Your task to perform on an android device: turn off smart reply in the gmail app Image 0: 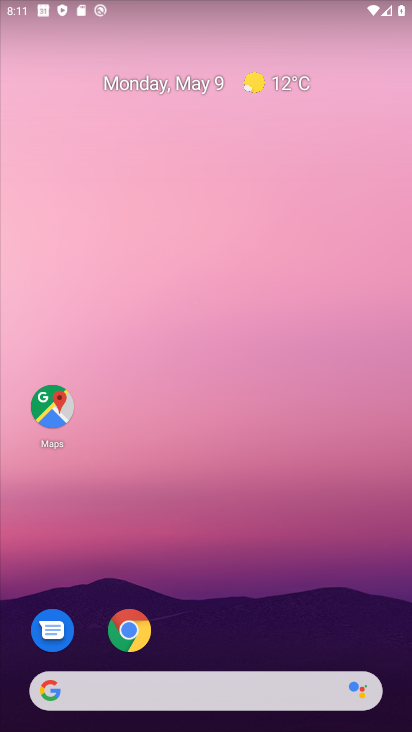
Step 0: drag from (228, 675) to (234, 272)
Your task to perform on an android device: turn off smart reply in the gmail app Image 1: 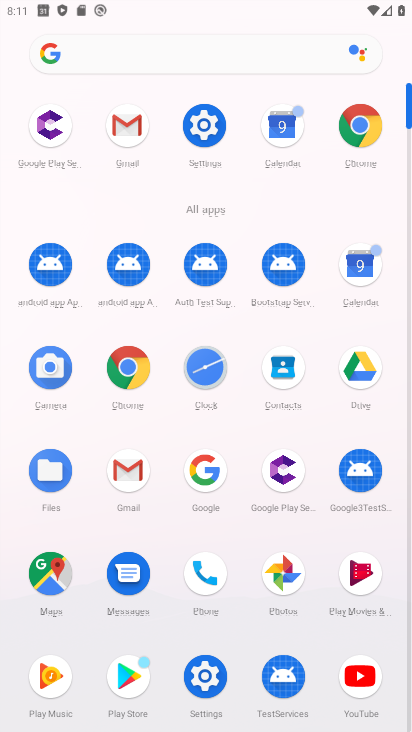
Step 1: click (119, 137)
Your task to perform on an android device: turn off smart reply in the gmail app Image 2: 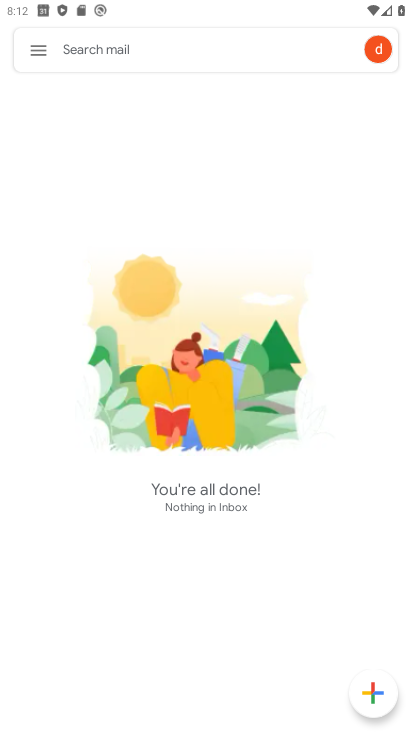
Step 2: click (37, 41)
Your task to perform on an android device: turn off smart reply in the gmail app Image 3: 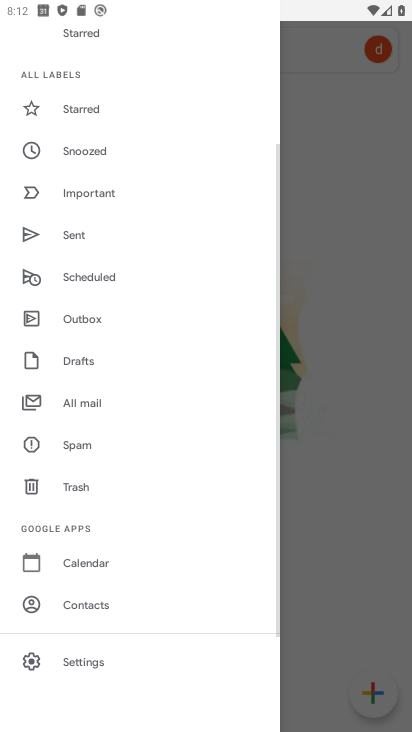
Step 3: click (83, 664)
Your task to perform on an android device: turn off smart reply in the gmail app Image 4: 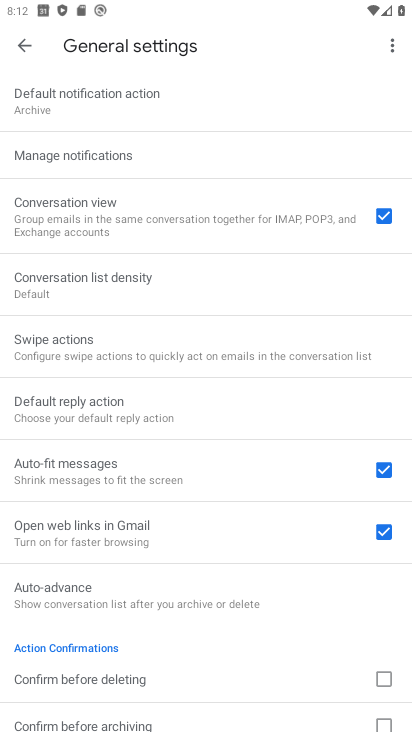
Step 4: click (26, 42)
Your task to perform on an android device: turn off smart reply in the gmail app Image 5: 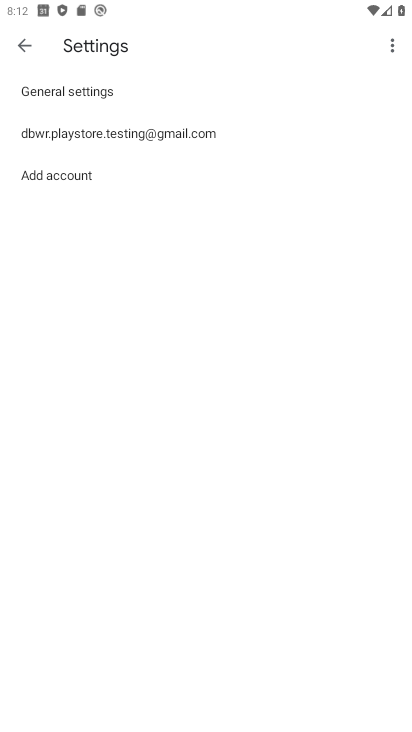
Step 5: click (114, 132)
Your task to perform on an android device: turn off smart reply in the gmail app Image 6: 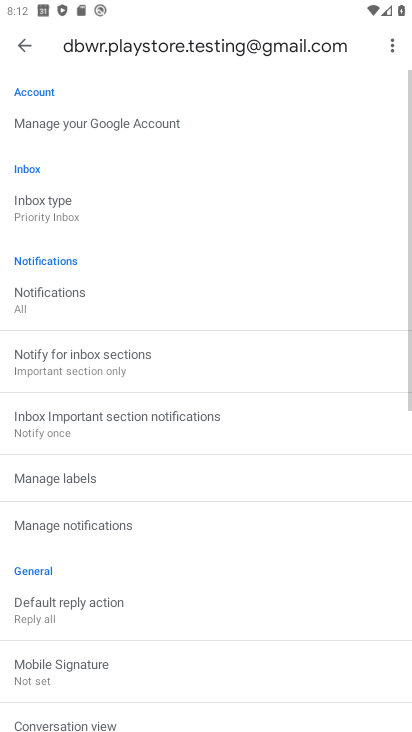
Step 6: drag from (135, 658) to (146, 303)
Your task to perform on an android device: turn off smart reply in the gmail app Image 7: 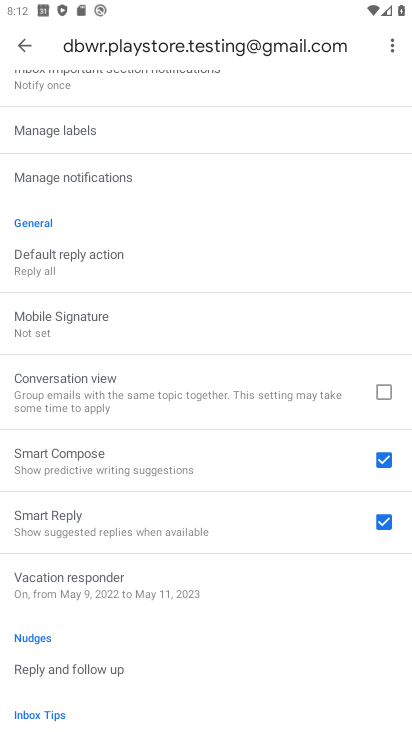
Step 7: click (377, 524)
Your task to perform on an android device: turn off smart reply in the gmail app Image 8: 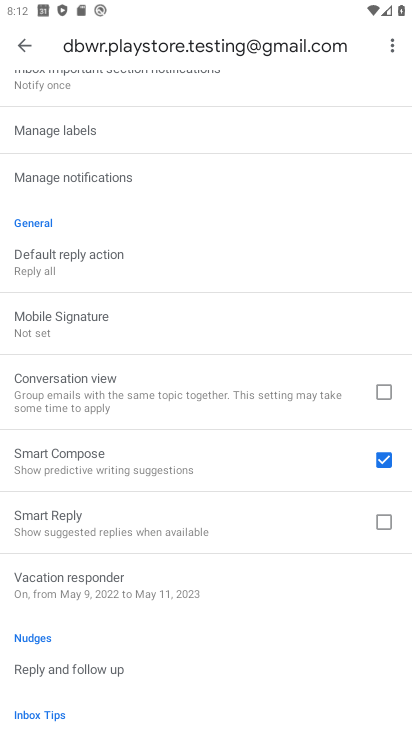
Step 8: task complete